Your task to perform on an android device: turn on the 24-hour format for clock Image 0: 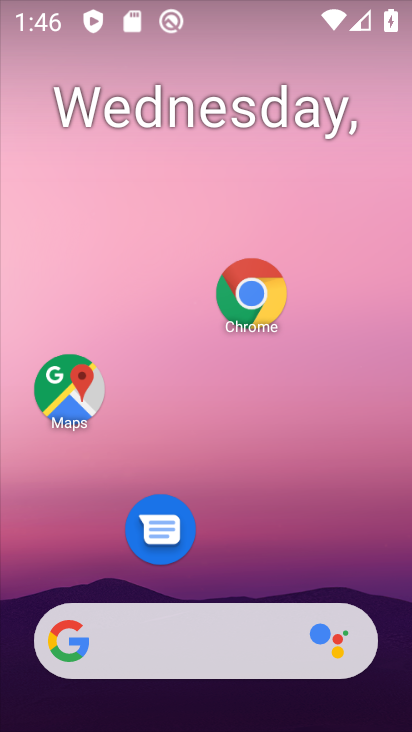
Step 0: drag from (272, 533) to (281, 176)
Your task to perform on an android device: turn on the 24-hour format for clock Image 1: 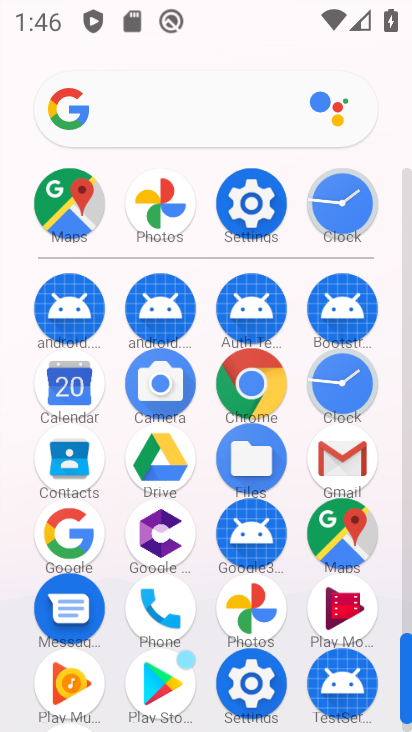
Step 1: click (344, 395)
Your task to perform on an android device: turn on the 24-hour format for clock Image 2: 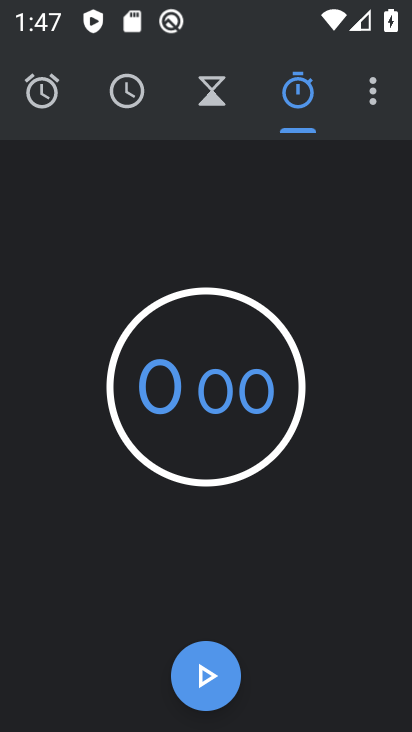
Step 2: click (378, 97)
Your task to perform on an android device: turn on the 24-hour format for clock Image 3: 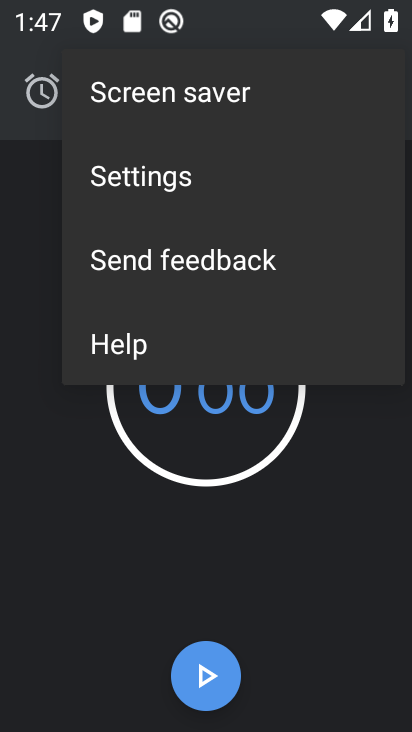
Step 3: click (266, 186)
Your task to perform on an android device: turn on the 24-hour format for clock Image 4: 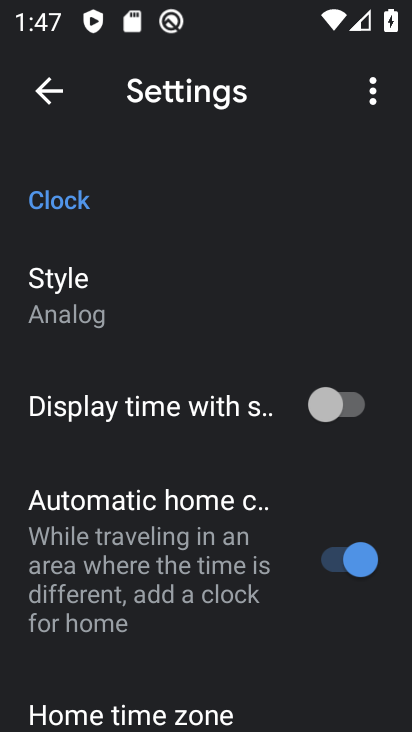
Step 4: drag from (219, 530) to (255, 293)
Your task to perform on an android device: turn on the 24-hour format for clock Image 5: 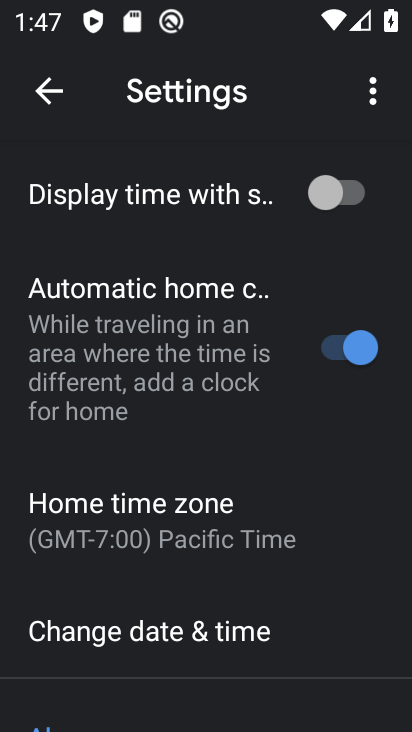
Step 5: click (209, 634)
Your task to perform on an android device: turn on the 24-hour format for clock Image 6: 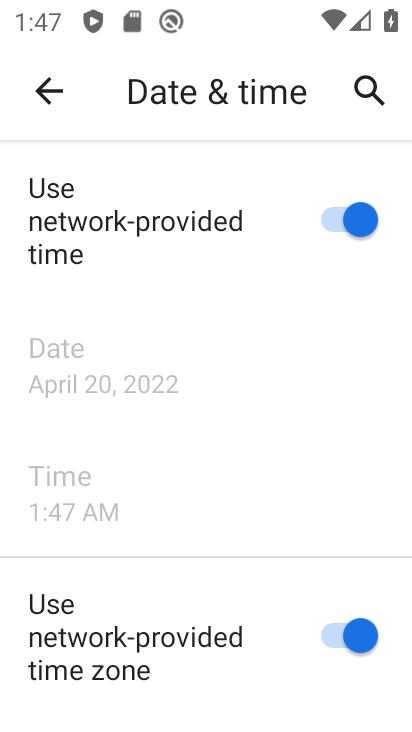
Step 6: task complete